Your task to perform on an android device: Go to accessibility settings Image 0: 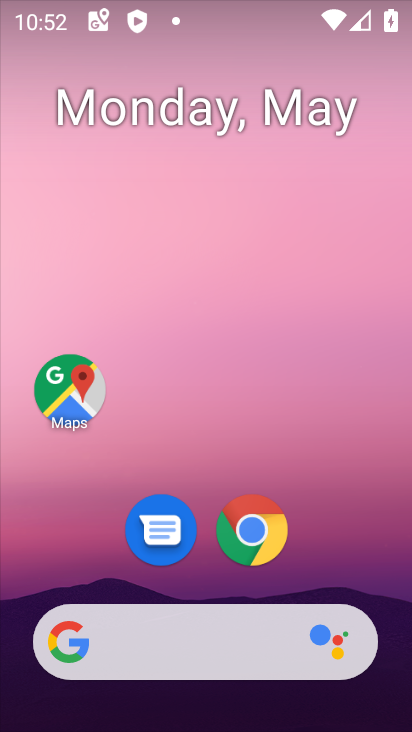
Step 0: drag from (338, 541) to (259, 89)
Your task to perform on an android device: Go to accessibility settings Image 1: 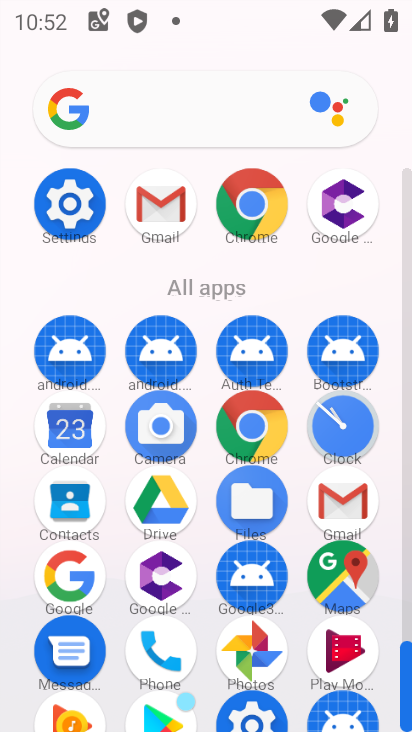
Step 1: click (70, 206)
Your task to perform on an android device: Go to accessibility settings Image 2: 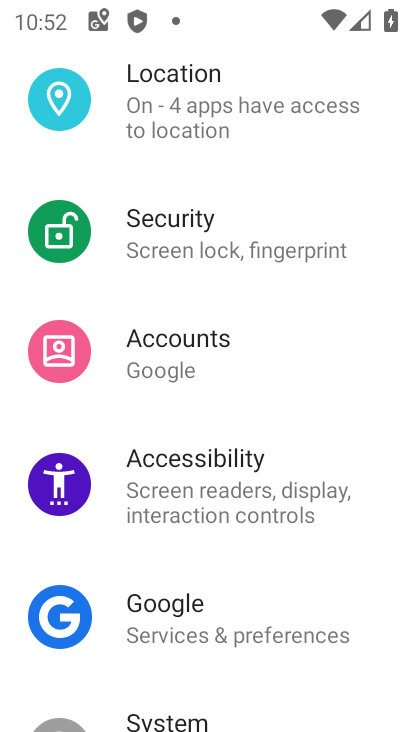
Step 2: click (172, 460)
Your task to perform on an android device: Go to accessibility settings Image 3: 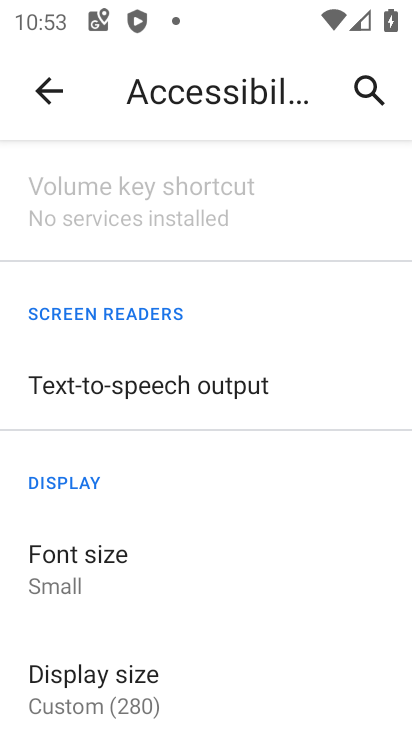
Step 3: task complete